Your task to perform on an android device: check data usage Image 0: 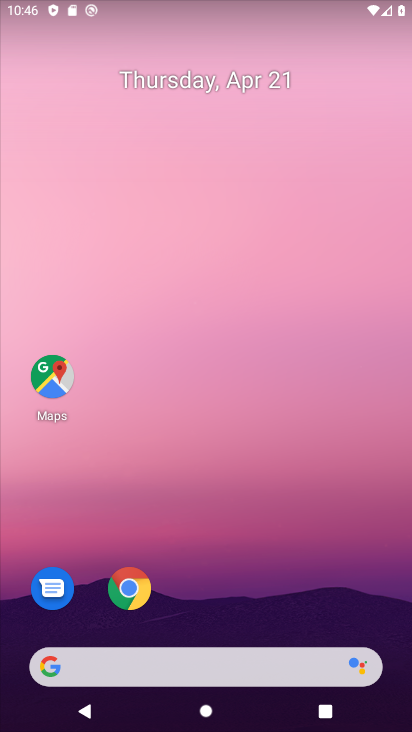
Step 0: drag from (249, 541) to (257, 197)
Your task to perform on an android device: check data usage Image 1: 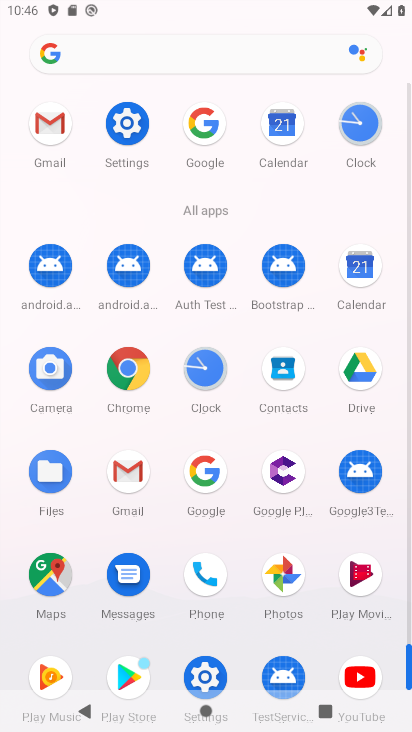
Step 1: click (148, 126)
Your task to perform on an android device: check data usage Image 2: 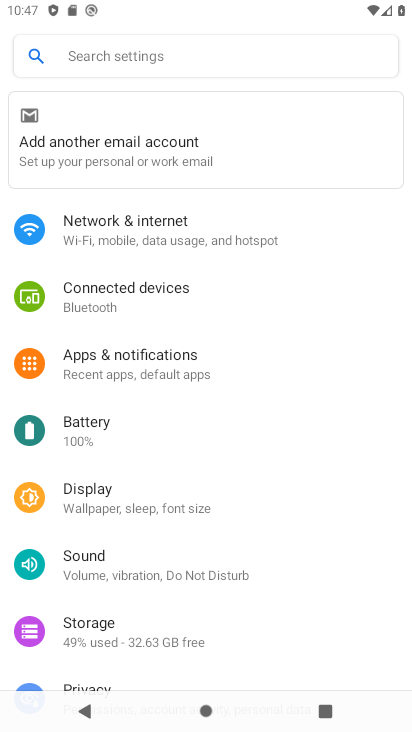
Step 2: drag from (222, 609) to (238, 335)
Your task to perform on an android device: check data usage Image 3: 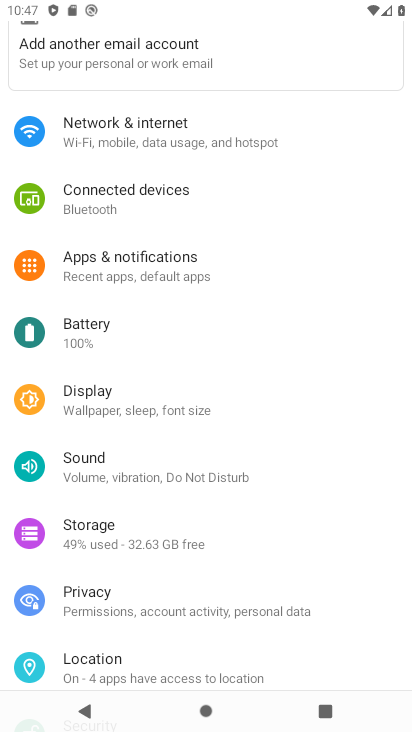
Step 3: click (155, 143)
Your task to perform on an android device: check data usage Image 4: 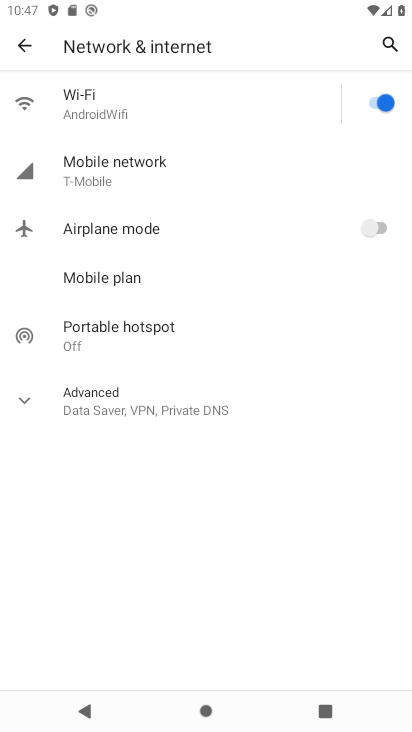
Step 4: click (126, 178)
Your task to perform on an android device: check data usage Image 5: 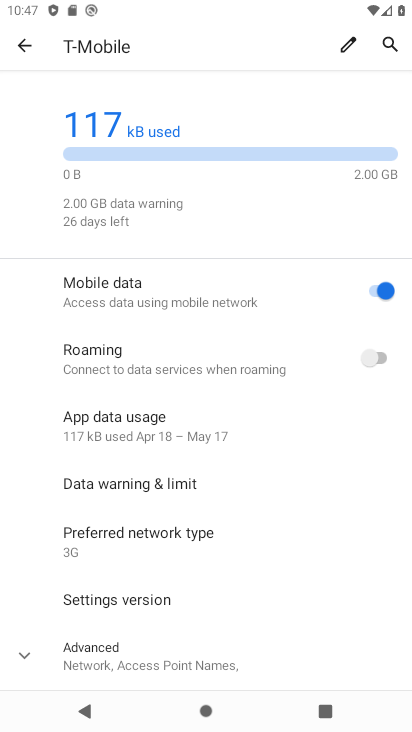
Step 5: click (175, 423)
Your task to perform on an android device: check data usage Image 6: 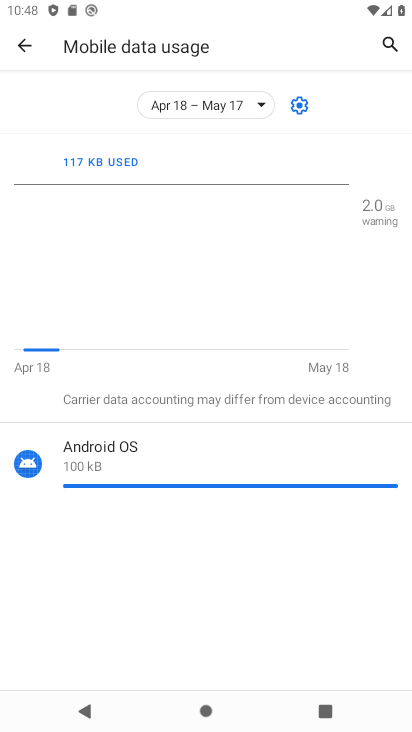
Step 6: task complete